Your task to perform on an android device: Go to Maps Image 0: 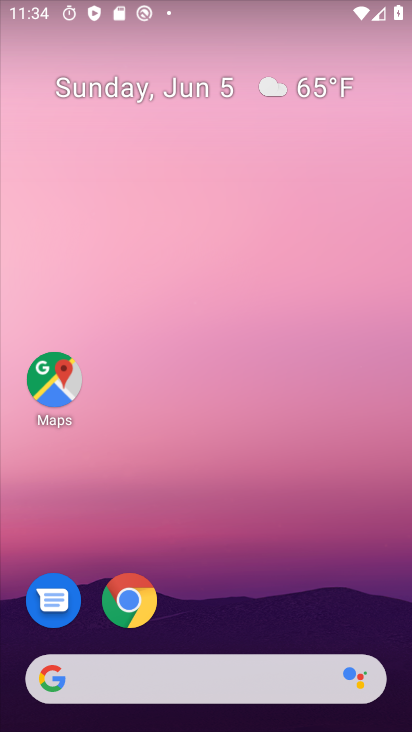
Step 0: click (411, 451)
Your task to perform on an android device: Go to Maps Image 1: 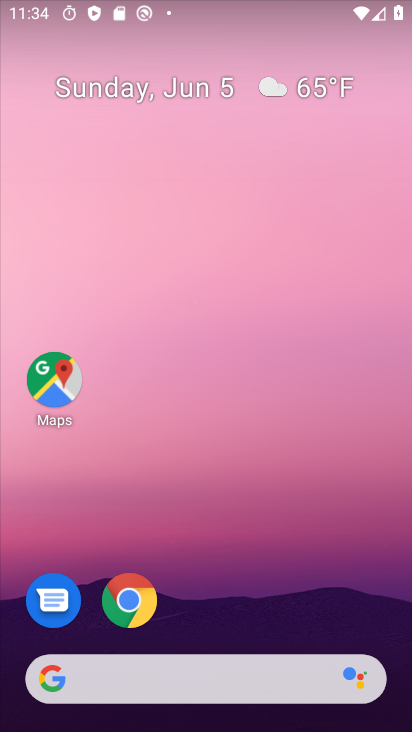
Step 1: drag from (228, 646) to (51, 20)
Your task to perform on an android device: Go to Maps Image 2: 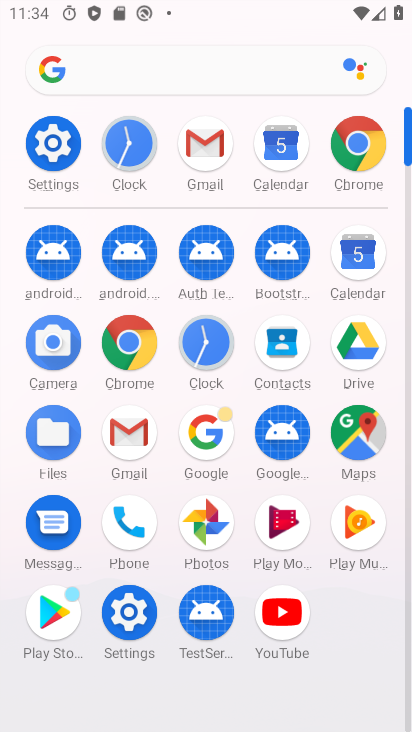
Step 2: click (367, 437)
Your task to perform on an android device: Go to Maps Image 3: 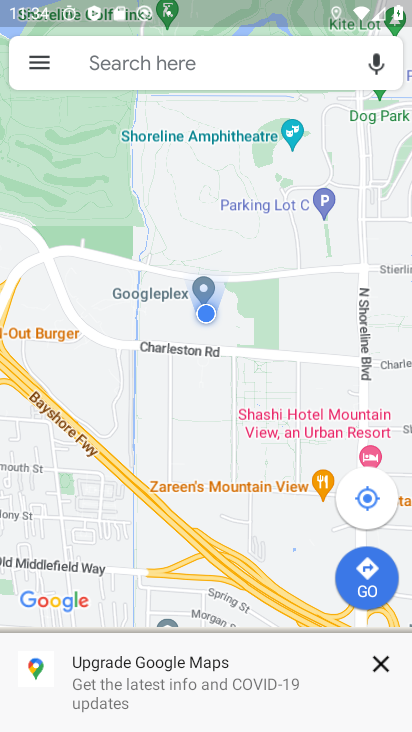
Step 3: task complete